Your task to perform on an android device: add a contact in the contacts app Image 0: 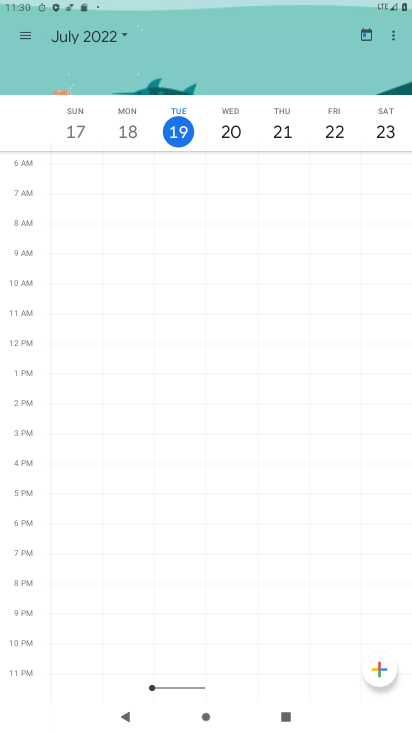
Step 0: press home button
Your task to perform on an android device: add a contact in the contacts app Image 1: 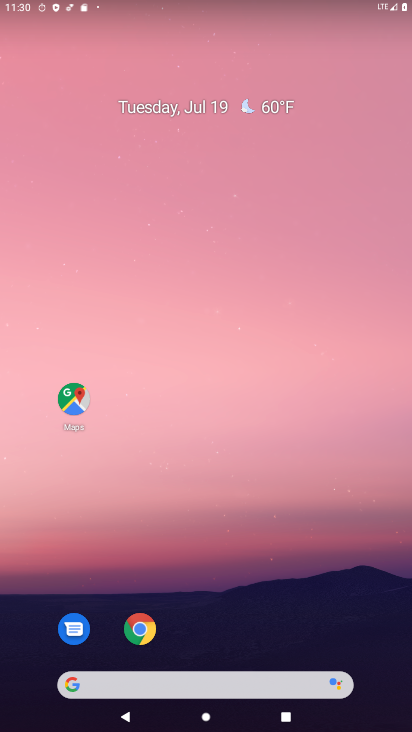
Step 1: drag from (308, 596) to (304, 97)
Your task to perform on an android device: add a contact in the contacts app Image 2: 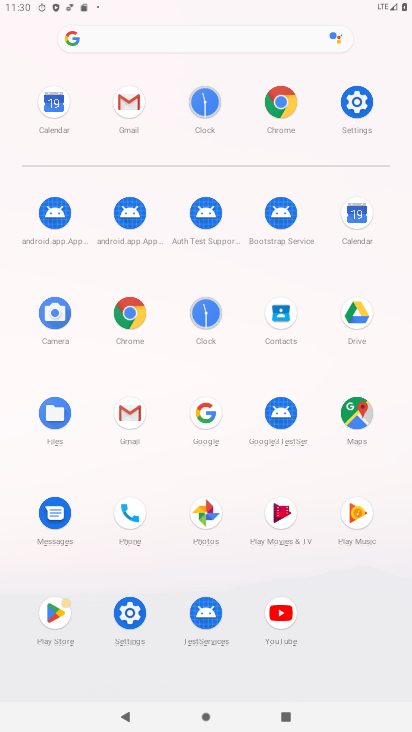
Step 2: click (279, 307)
Your task to perform on an android device: add a contact in the contacts app Image 3: 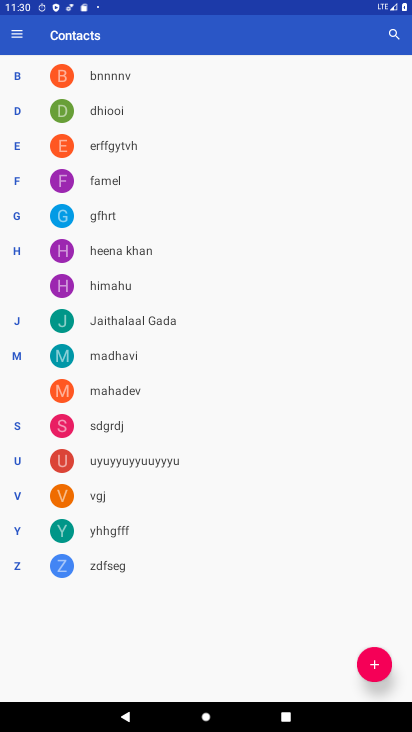
Step 3: click (373, 651)
Your task to perform on an android device: add a contact in the contacts app Image 4: 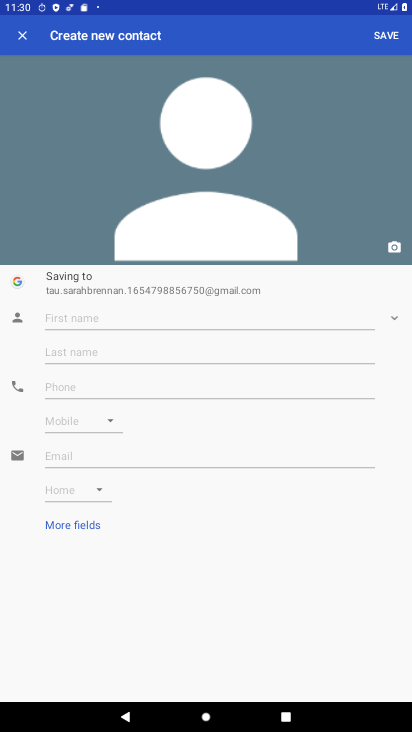
Step 4: click (199, 315)
Your task to perform on an android device: add a contact in the contacts app Image 5: 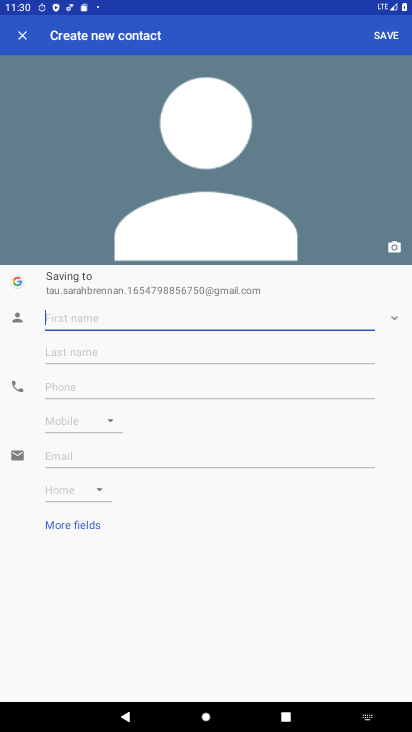
Step 5: type "c"
Your task to perform on an android device: add a contact in the contacts app Image 6: 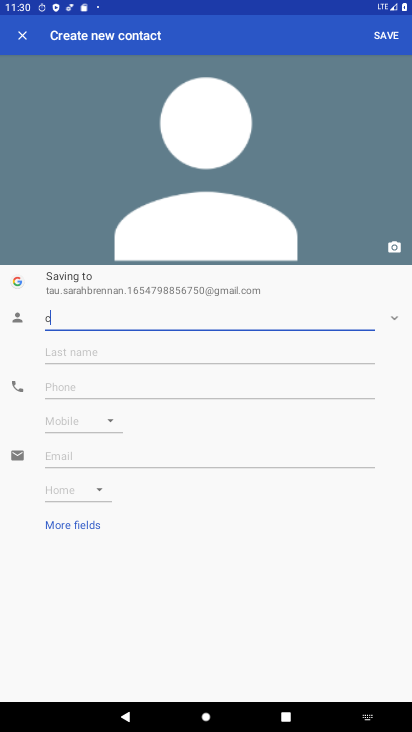
Step 6: type "cadnury"
Your task to perform on an android device: add a contact in the contacts app Image 7: 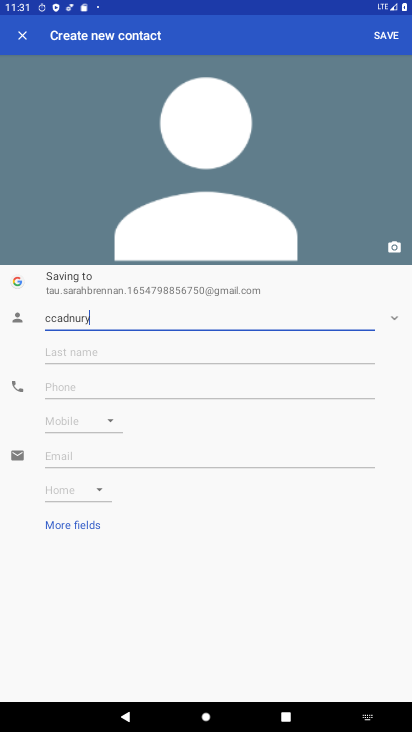
Step 7: type ""
Your task to perform on an android device: add a contact in the contacts app Image 8: 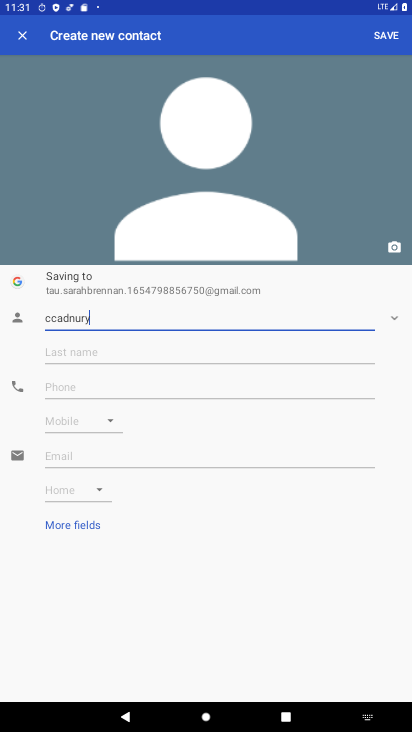
Step 8: click (389, 29)
Your task to perform on an android device: add a contact in the contacts app Image 9: 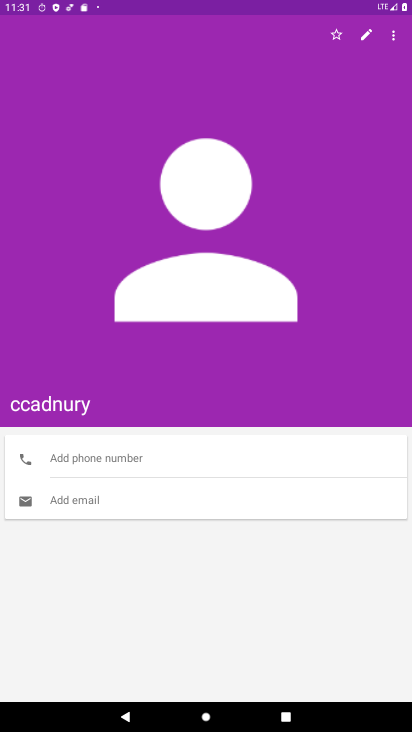
Step 9: task complete